Your task to perform on an android device: Open Google Chrome and click the shortcut for Amazon.com Image 0: 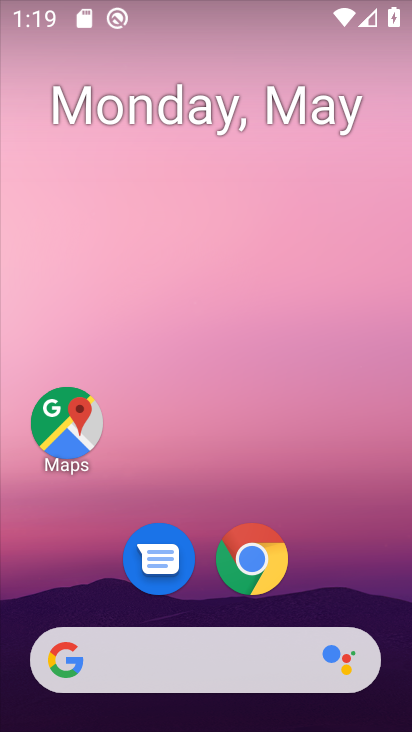
Step 0: click (255, 564)
Your task to perform on an android device: Open Google Chrome and click the shortcut for Amazon.com Image 1: 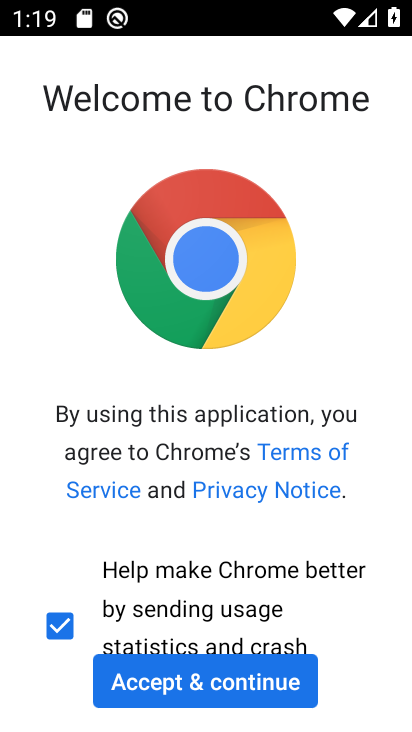
Step 1: click (218, 678)
Your task to perform on an android device: Open Google Chrome and click the shortcut for Amazon.com Image 2: 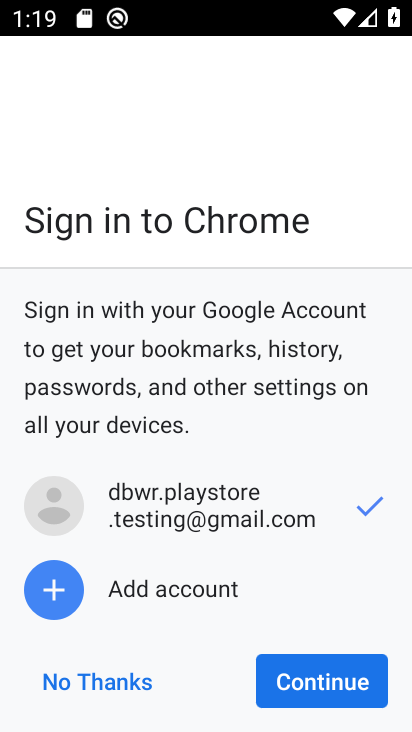
Step 2: click (365, 701)
Your task to perform on an android device: Open Google Chrome and click the shortcut for Amazon.com Image 3: 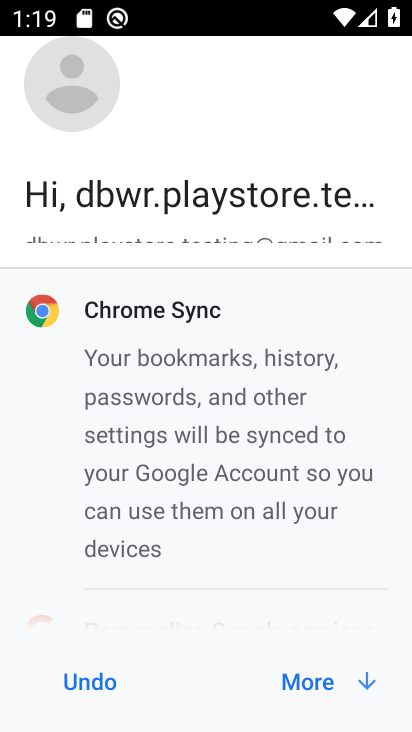
Step 3: click (349, 686)
Your task to perform on an android device: Open Google Chrome and click the shortcut for Amazon.com Image 4: 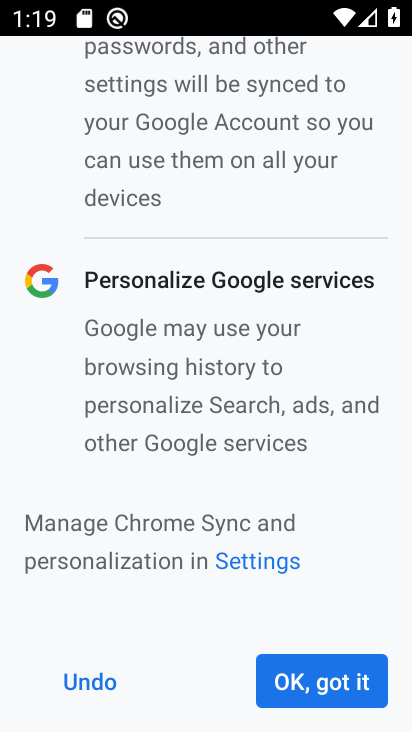
Step 4: click (349, 686)
Your task to perform on an android device: Open Google Chrome and click the shortcut for Amazon.com Image 5: 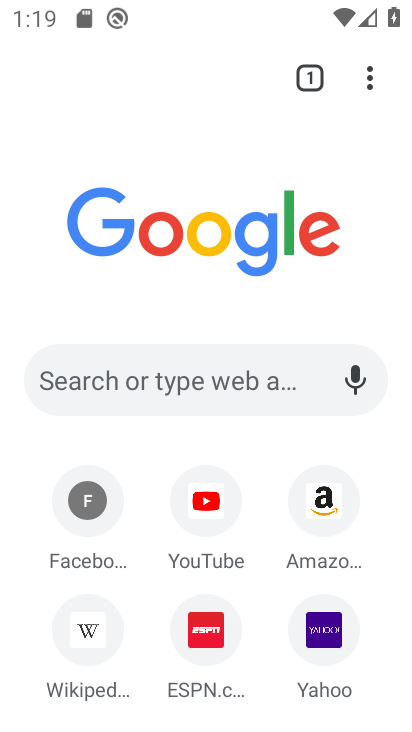
Step 5: click (310, 502)
Your task to perform on an android device: Open Google Chrome and click the shortcut for Amazon.com Image 6: 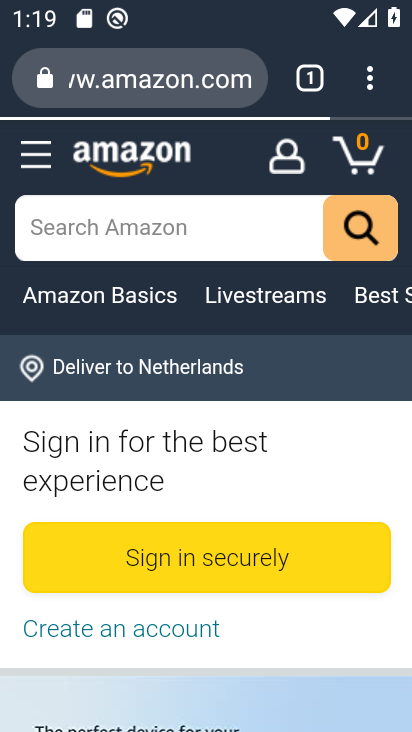
Step 6: click (372, 77)
Your task to perform on an android device: Open Google Chrome and click the shortcut for Amazon.com Image 7: 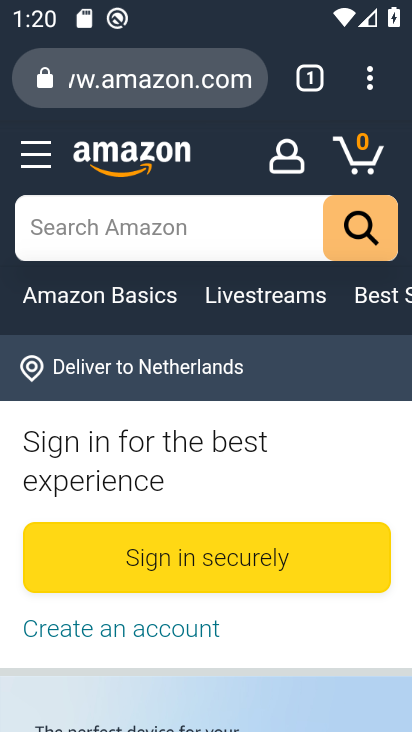
Step 7: click (368, 73)
Your task to perform on an android device: Open Google Chrome and click the shortcut for Amazon.com Image 8: 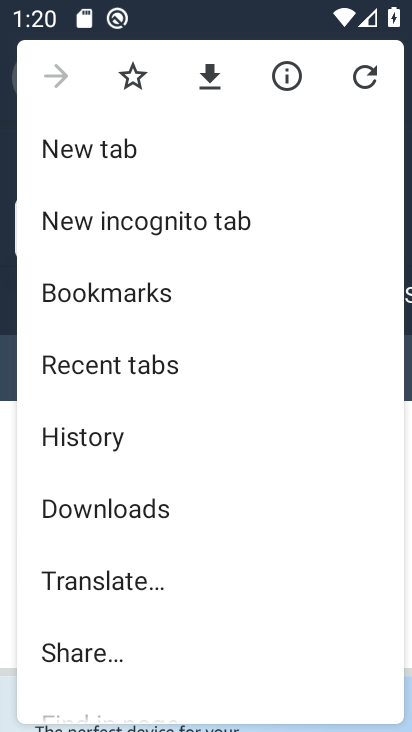
Step 8: drag from (261, 490) to (310, 214)
Your task to perform on an android device: Open Google Chrome and click the shortcut for Amazon.com Image 9: 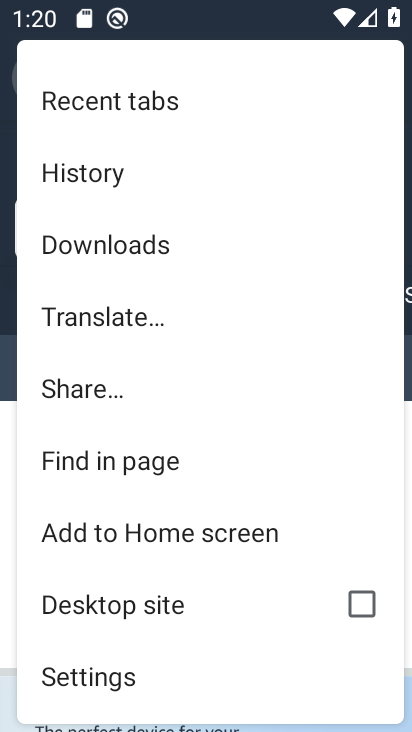
Step 9: click (249, 526)
Your task to perform on an android device: Open Google Chrome and click the shortcut for Amazon.com Image 10: 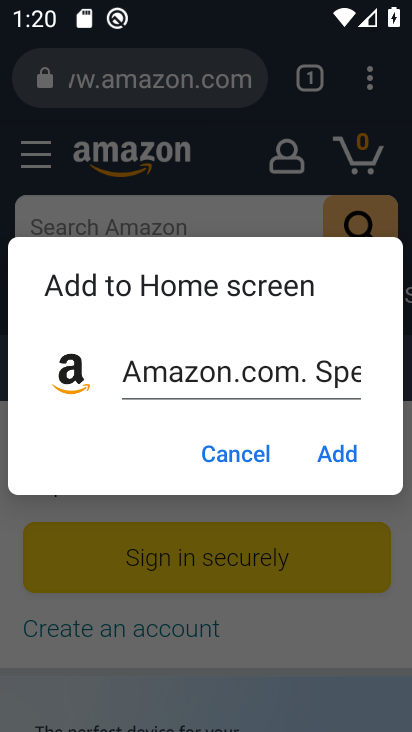
Step 10: click (337, 452)
Your task to perform on an android device: Open Google Chrome and click the shortcut for Amazon.com Image 11: 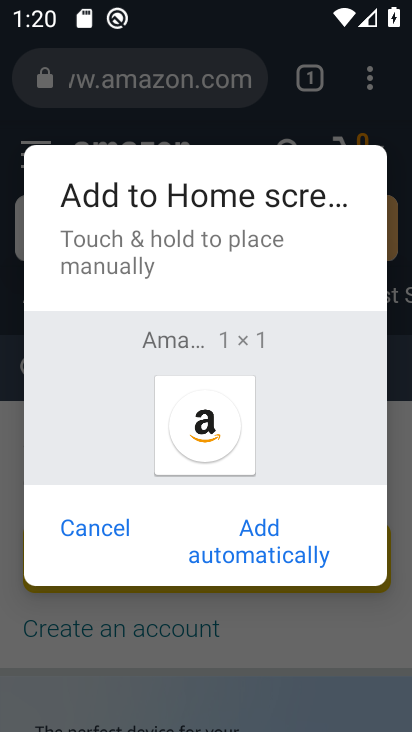
Step 11: task complete